Your task to perform on an android device: Open Chrome and go to the settings page Image 0: 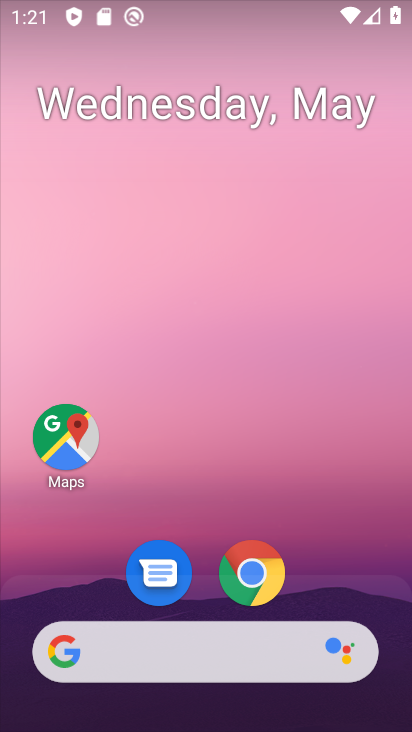
Step 0: click (250, 574)
Your task to perform on an android device: Open Chrome and go to the settings page Image 1: 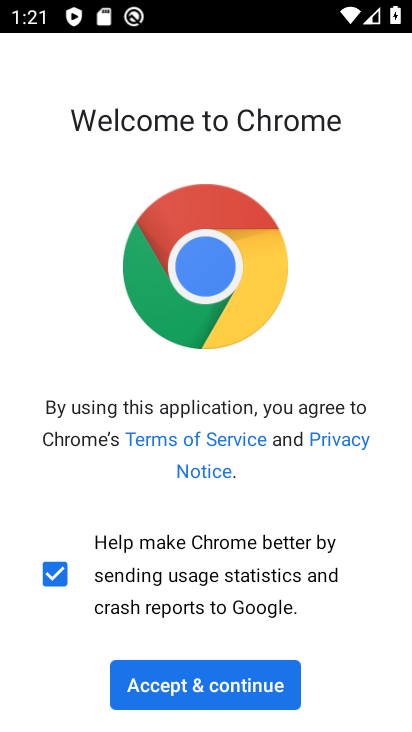
Step 1: click (253, 684)
Your task to perform on an android device: Open Chrome and go to the settings page Image 2: 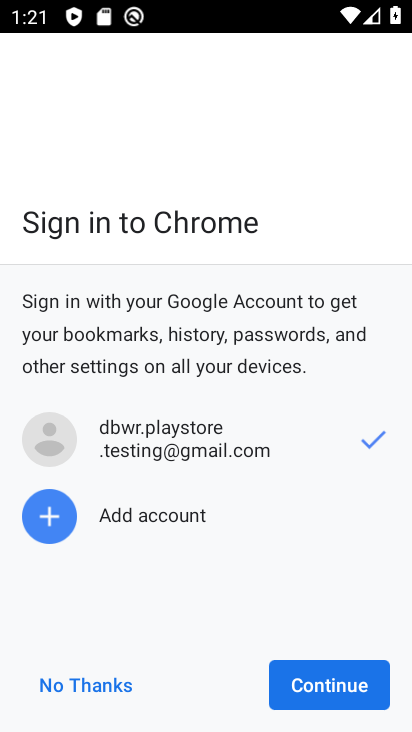
Step 2: click (310, 689)
Your task to perform on an android device: Open Chrome and go to the settings page Image 3: 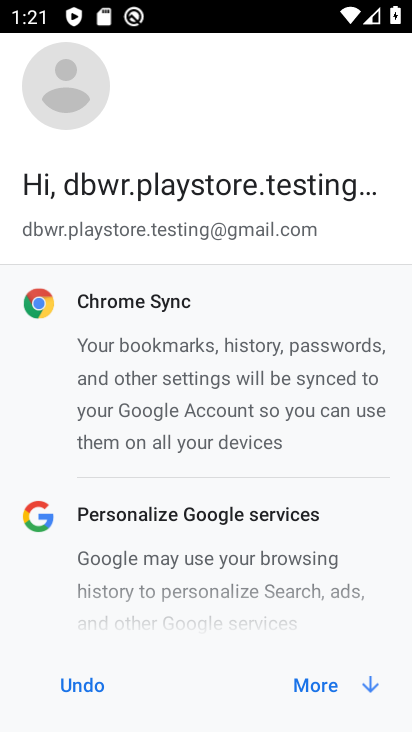
Step 3: click (310, 689)
Your task to perform on an android device: Open Chrome and go to the settings page Image 4: 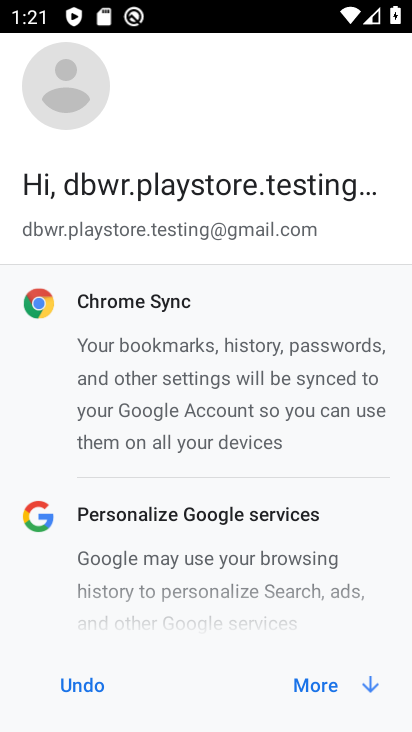
Step 4: click (310, 689)
Your task to perform on an android device: Open Chrome and go to the settings page Image 5: 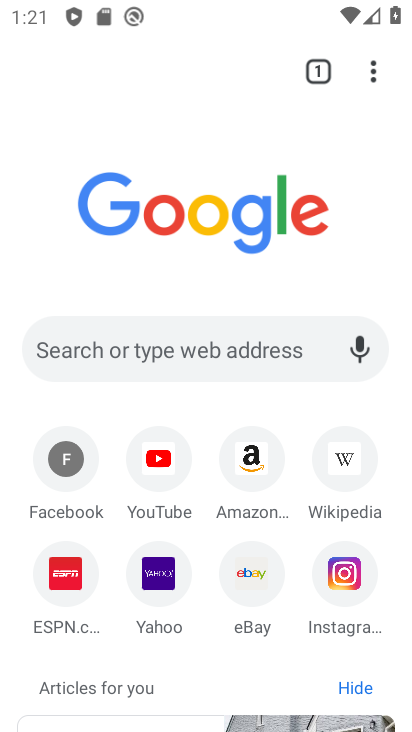
Step 5: click (372, 69)
Your task to perform on an android device: Open Chrome and go to the settings page Image 6: 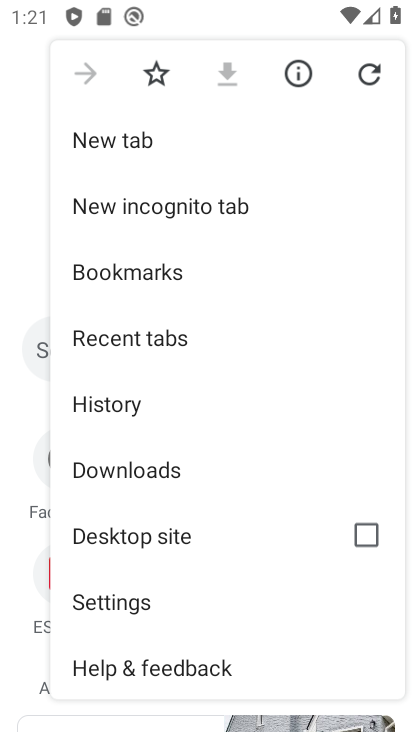
Step 6: click (126, 601)
Your task to perform on an android device: Open Chrome and go to the settings page Image 7: 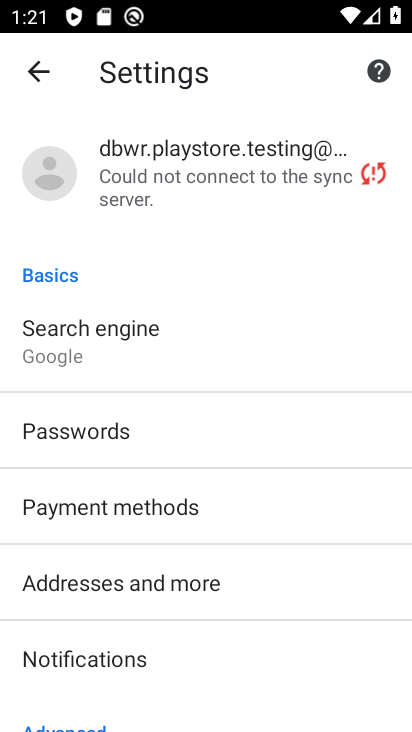
Step 7: task complete